Your task to perform on an android device: turn off airplane mode Image 0: 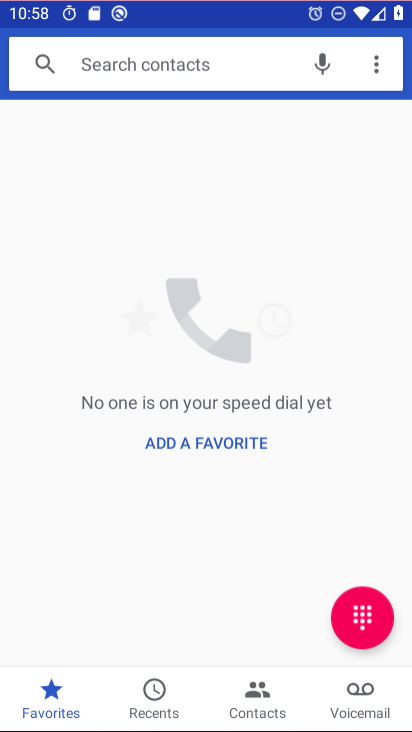
Step 0: press home button
Your task to perform on an android device: turn off airplane mode Image 1: 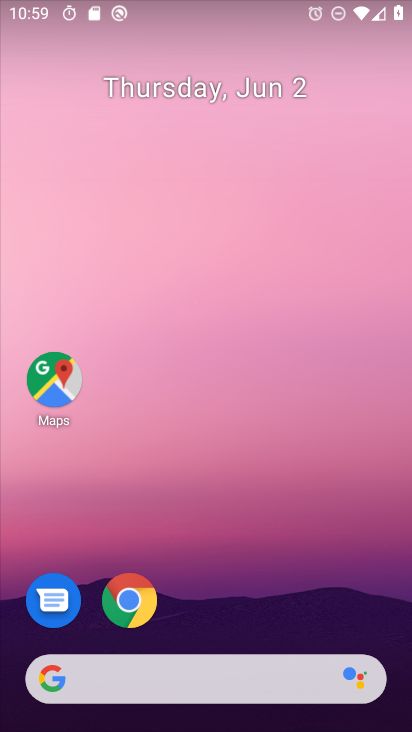
Step 1: drag from (209, 617) to (241, 57)
Your task to perform on an android device: turn off airplane mode Image 2: 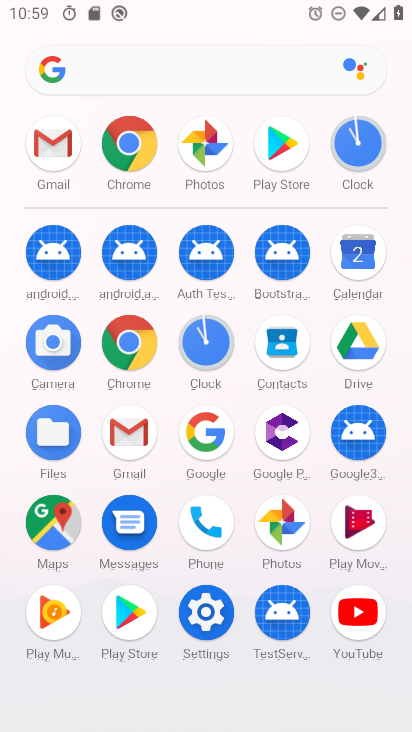
Step 2: click (218, 621)
Your task to perform on an android device: turn off airplane mode Image 3: 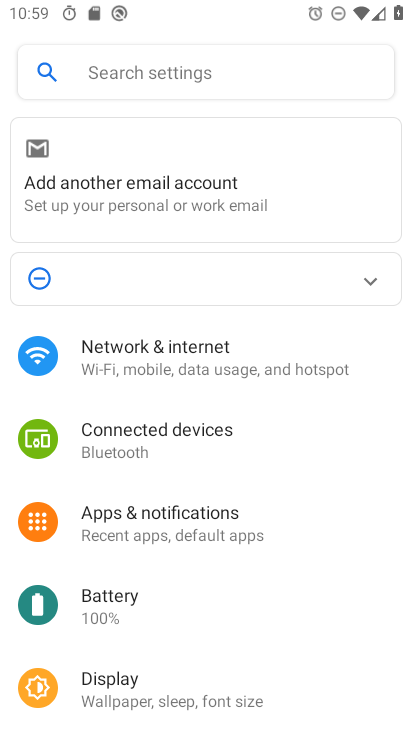
Step 3: click (199, 353)
Your task to perform on an android device: turn off airplane mode Image 4: 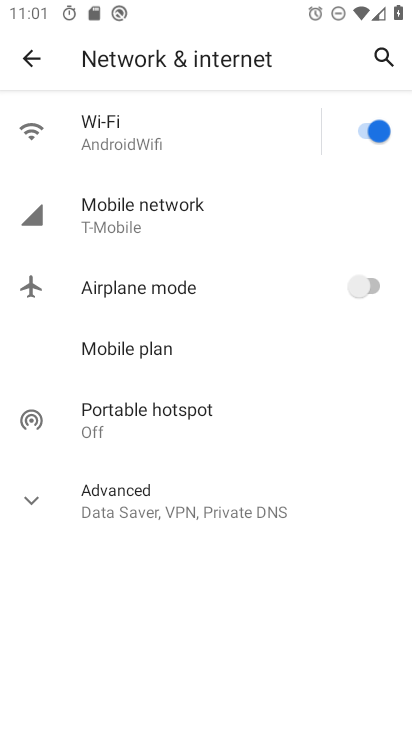
Step 4: task complete